Your task to perform on an android device: What is the recent news? Image 0: 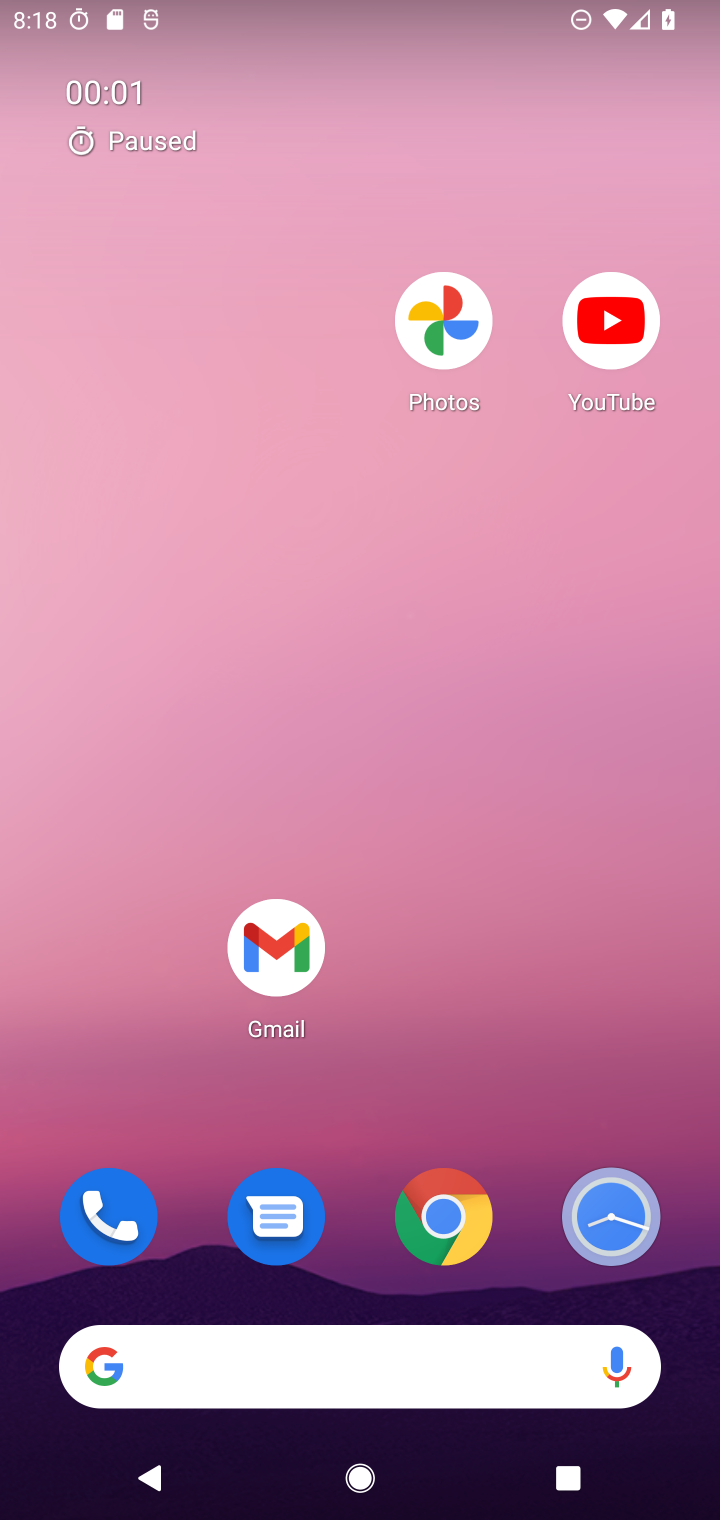
Step 0: drag from (498, 1117) to (248, 102)
Your task to perform on an android device: What is the recent news? Image 1: 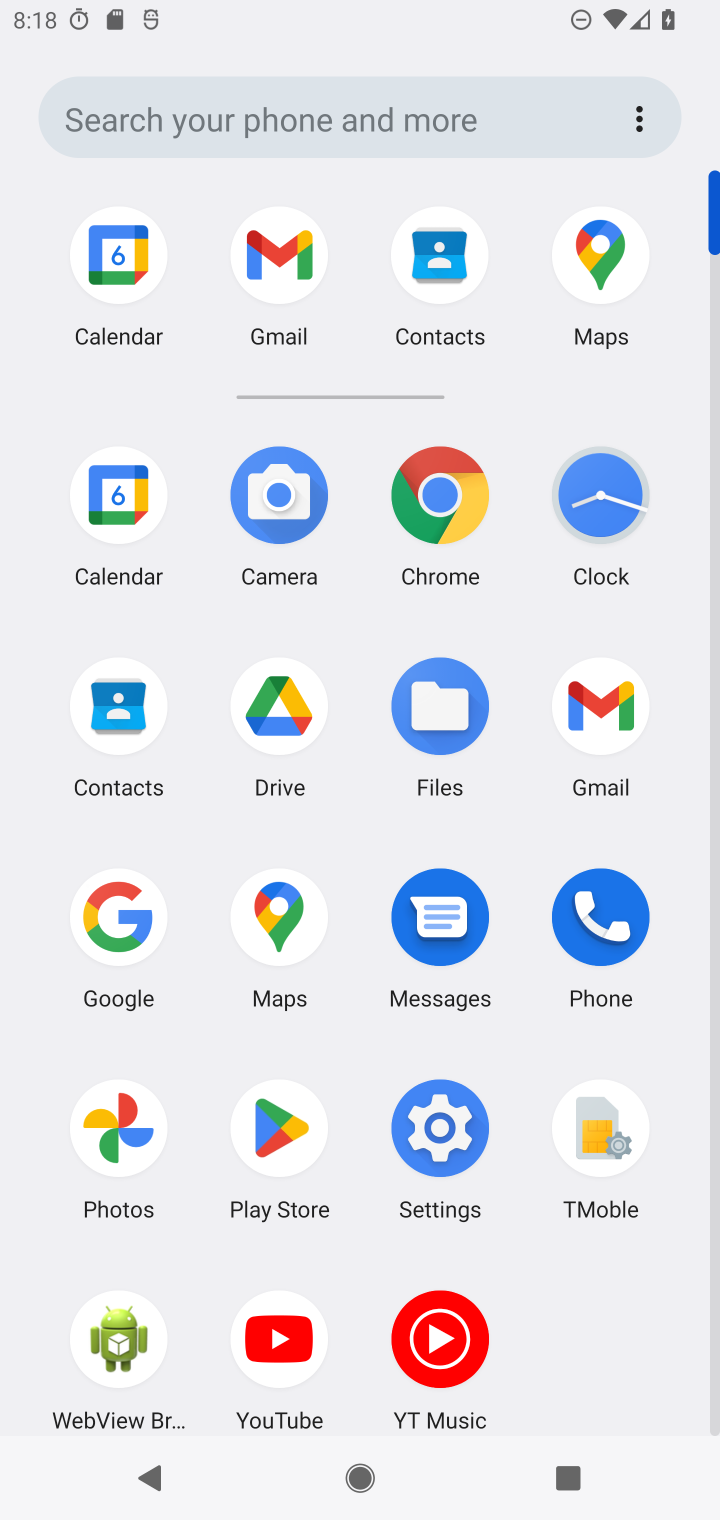
Step 1: click (443, 502)
Your task to perform on an android device: What is the recent news? Image 2: 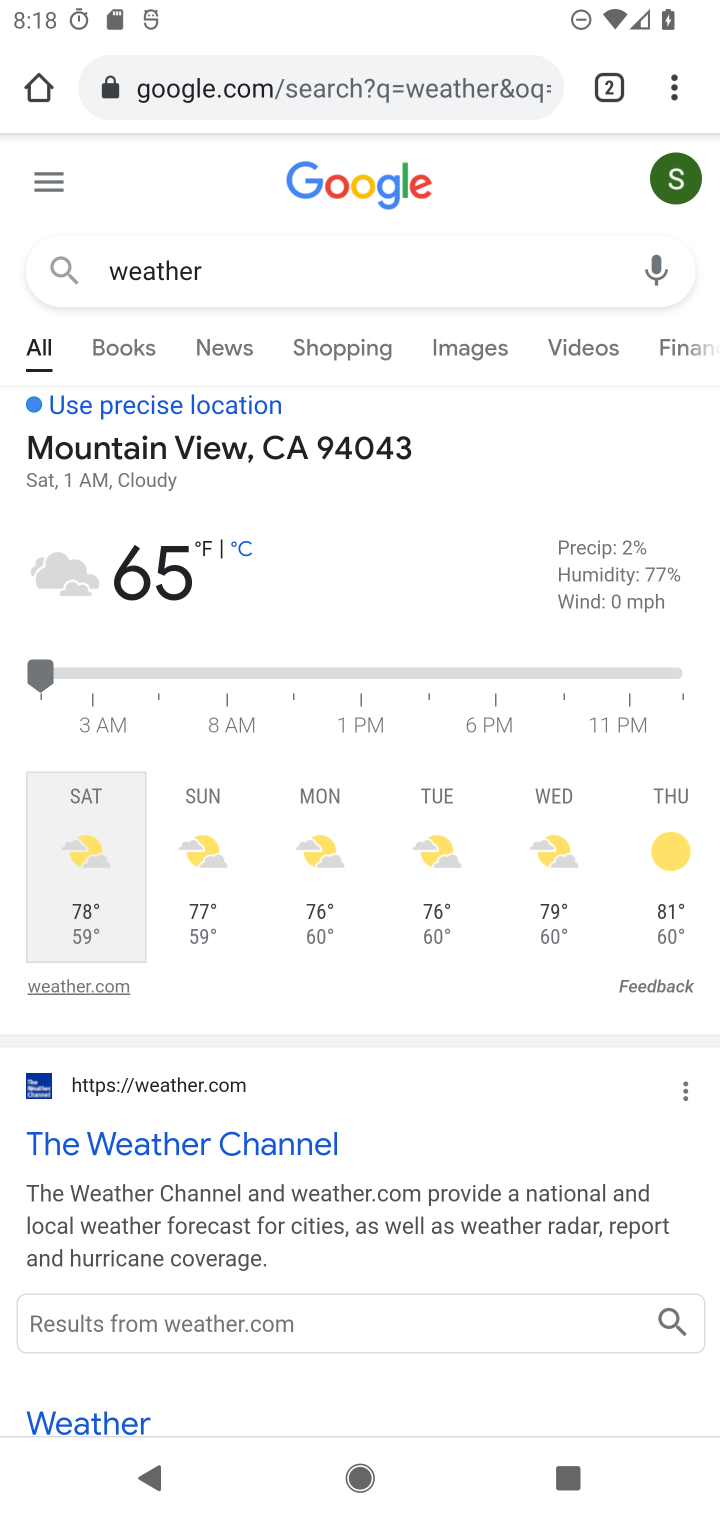
Step 2: click (401, 71)
Your task to perform on an android device: What is the recent news? Image 3: 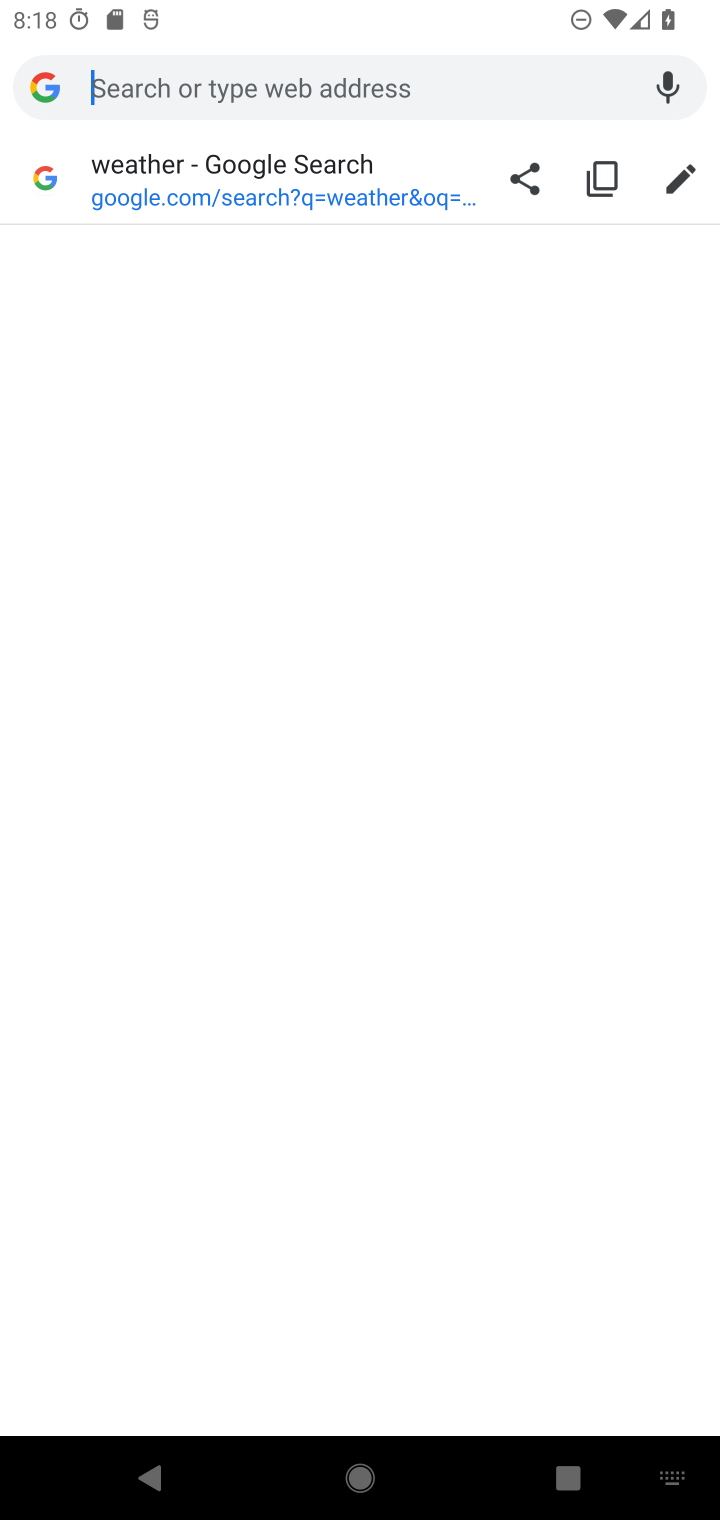
Step 3: type "news"
Your task to perform on an android device: What is the recent news? Image 4: 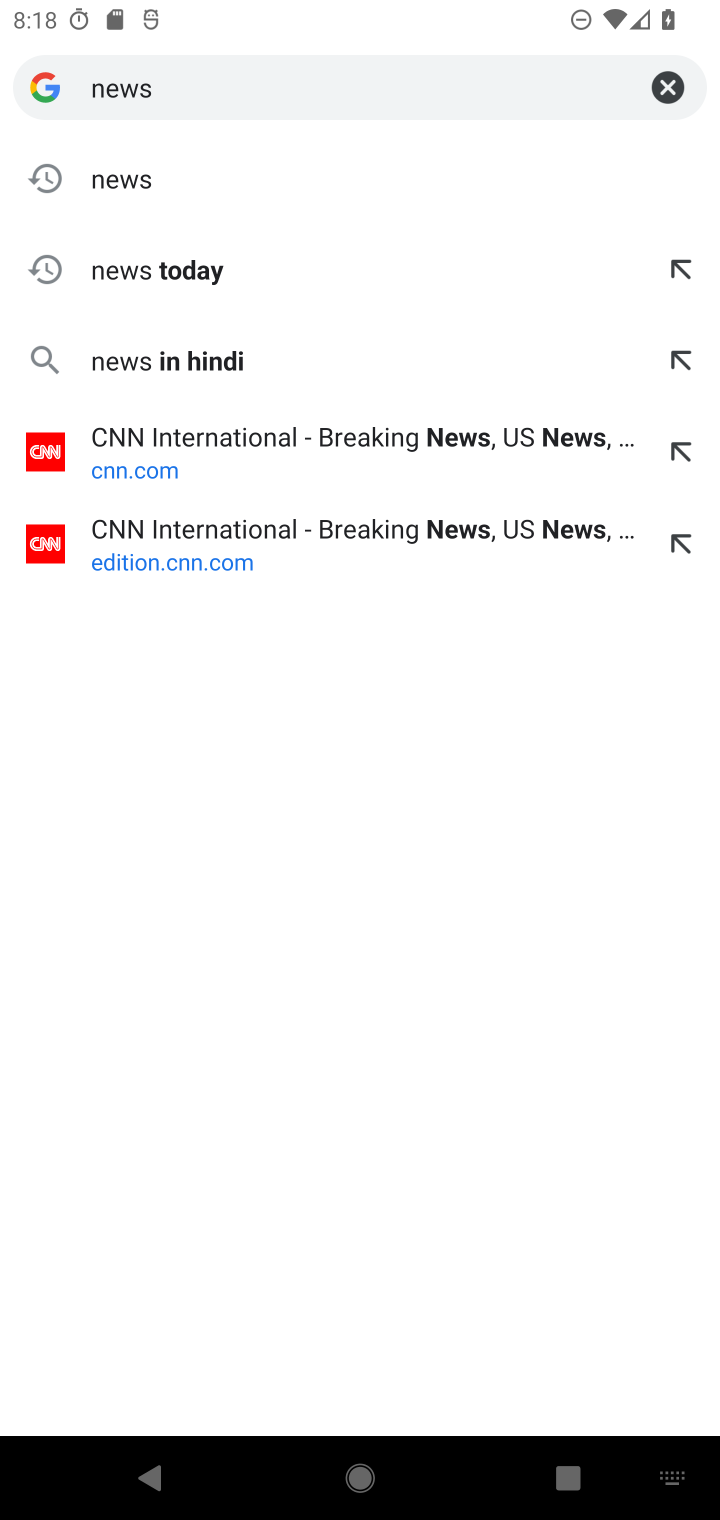
Step 4: click (141, 201)
Your task to perform on an android device: What is the recent news? Image 5: 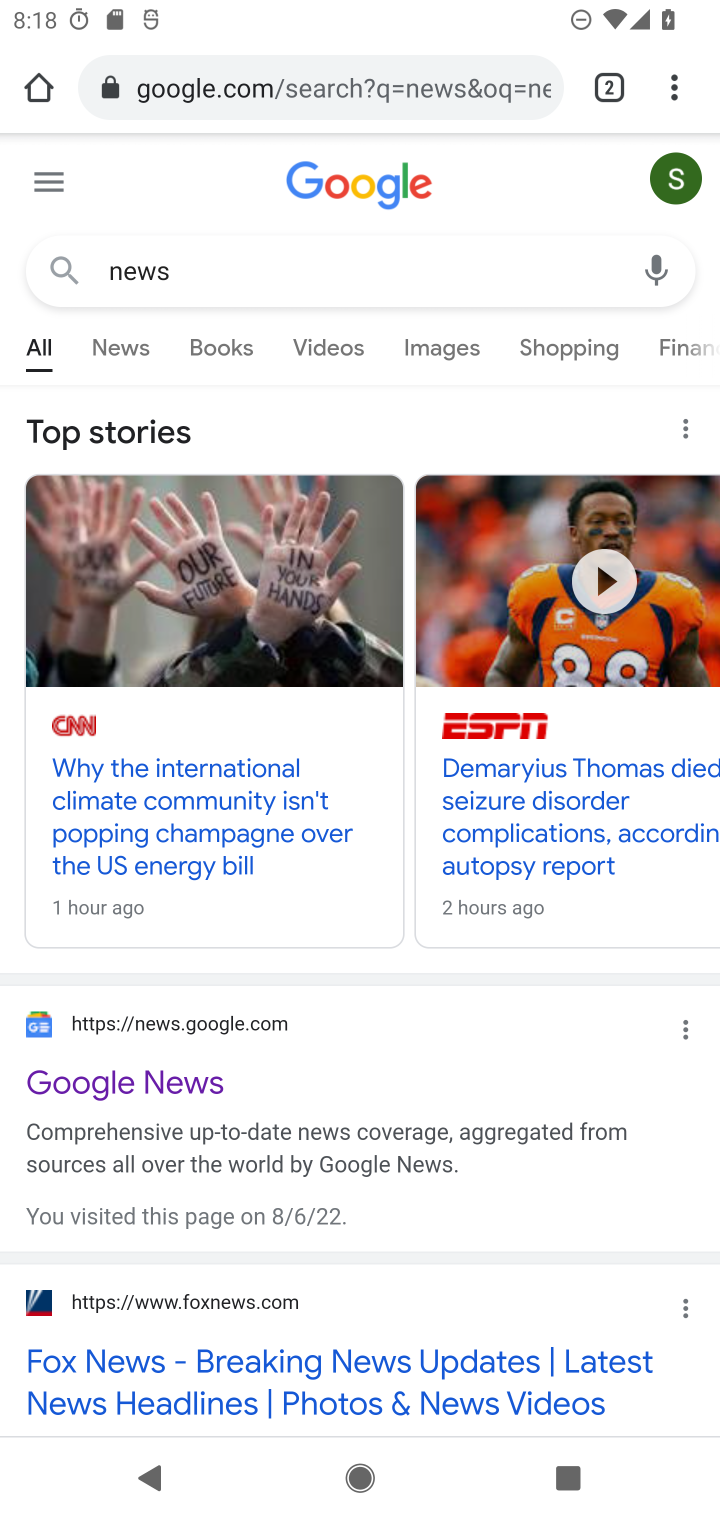
Step 5: click (117, 1088)
Your task to perform on an android device: What is the recent news? Image 6: 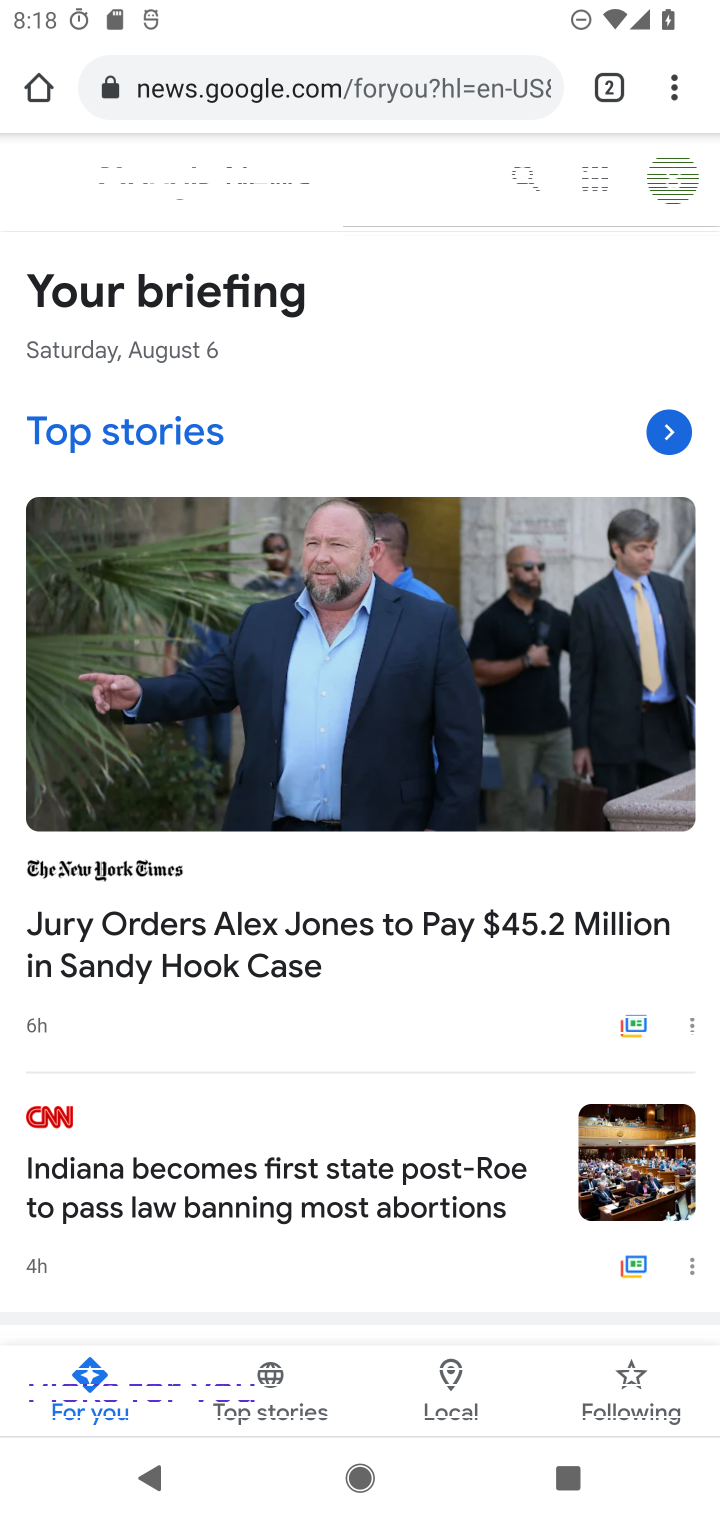
Step 6: task complete